Your task to perform on an android device: Play the last video I watched on Youtube Image 0: 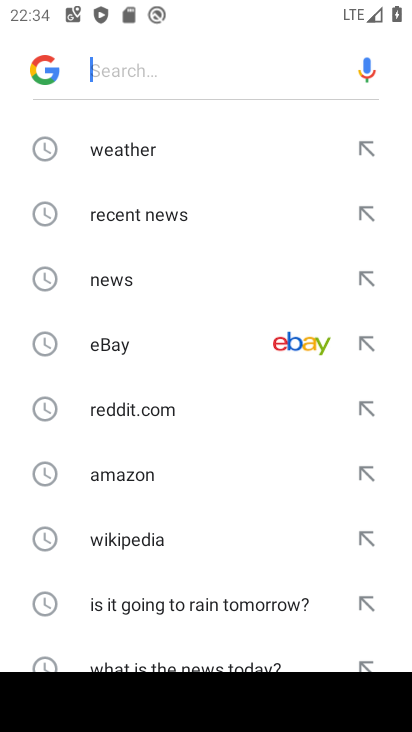
Step 0: press home button
Your task to perform on an android device: Play the last video I watched on Youtube Image 1: 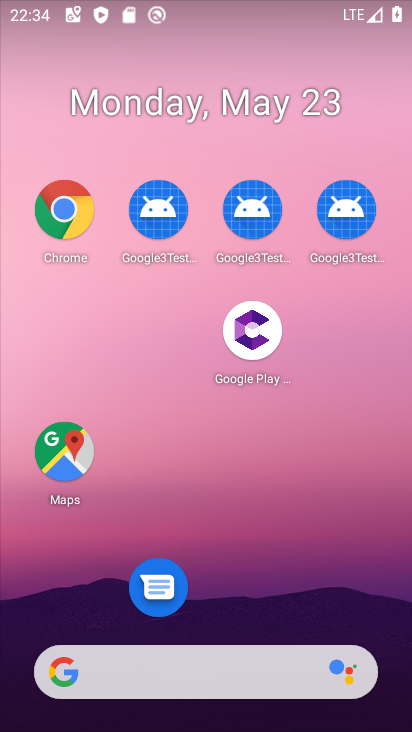
Step 1: drag from (276, 530) to (305, 229)
Your task to perform on an android device: Play the last video I watched on Youtube Image 2: 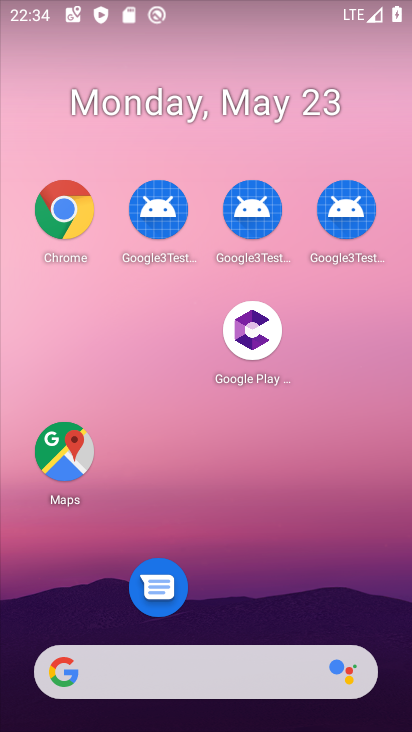
Step 2: drag from (245, 606) to (232, 186)
Your task to perform on an android device: Play the last video I watched on Youtube Image 3: 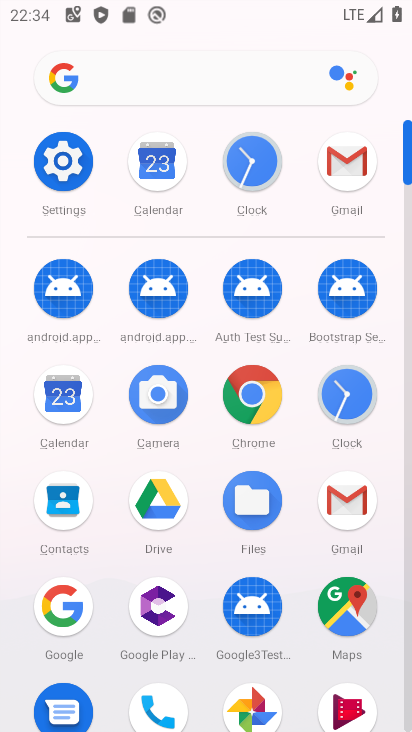
Step 3: drag from (312, 677) to (364, 218)
Your task to perform on an android device: Play the last video I watched on Youtube Image 4: 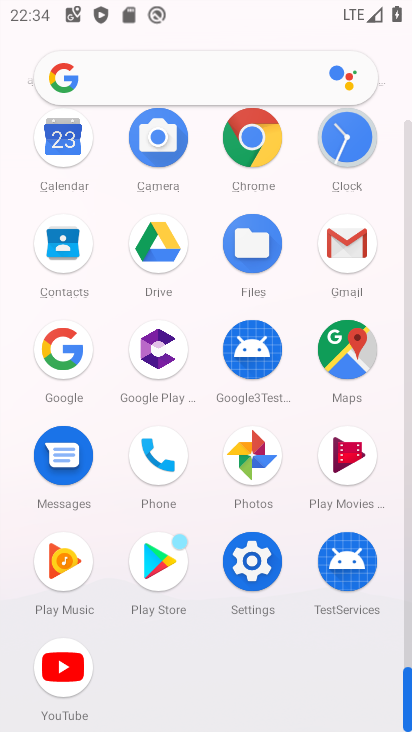
Step 4: click (51, 634)
Your task to perform on an android device: Play the last video I watched on Youtube Image 5: 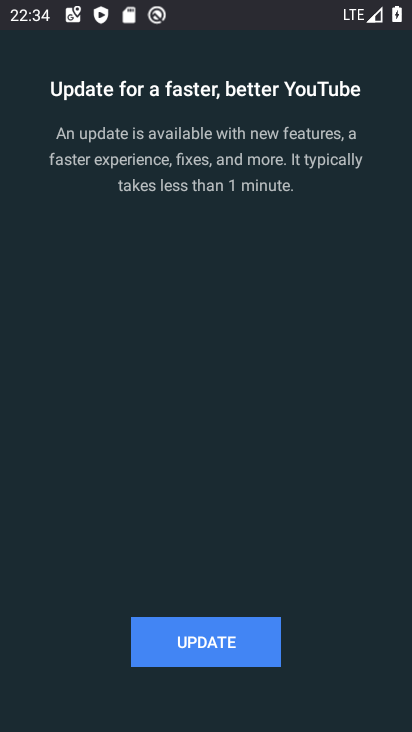
Step 5: click (146, 646)
Your task to perform on an android device: Play the last video I watched on Youtube Image 6: 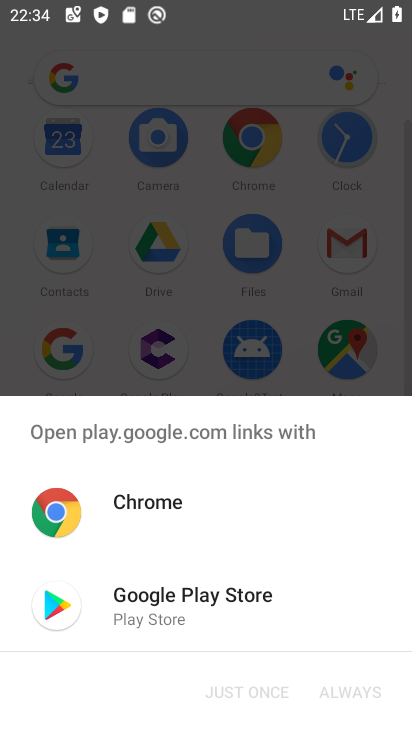
Step 6: click (193, 592)
Your task to perform on an android device: Play the last video I watched on Youtube Image 7: 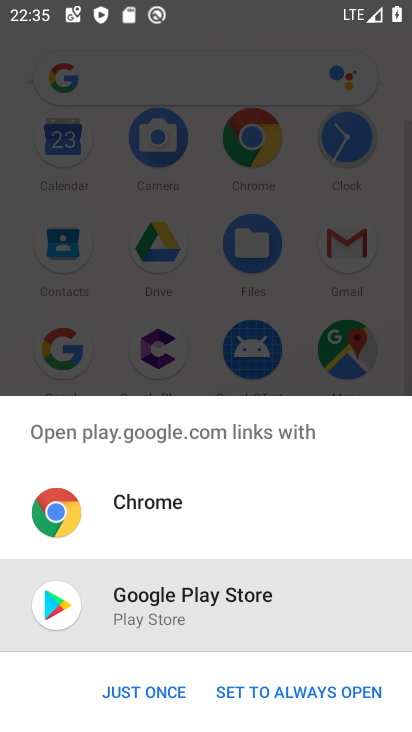
Step 7: click (269, 694)
Your task to perform on an android device: Play the last video I watched on Youtube Image 8: 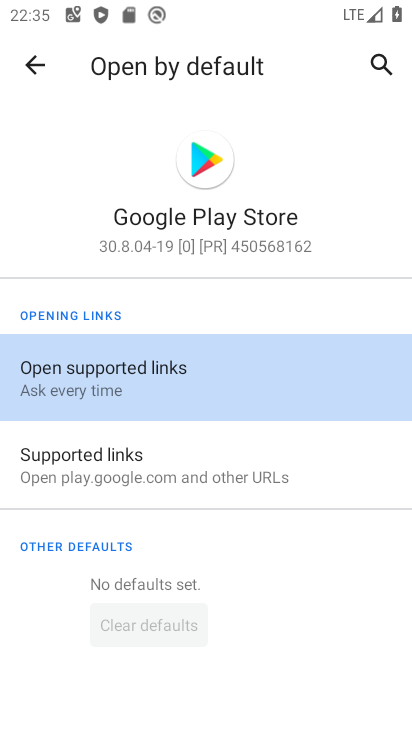
Step 8: press back button
Your task to perform on an android device: Play the last video I watched on Youtube Image 9: 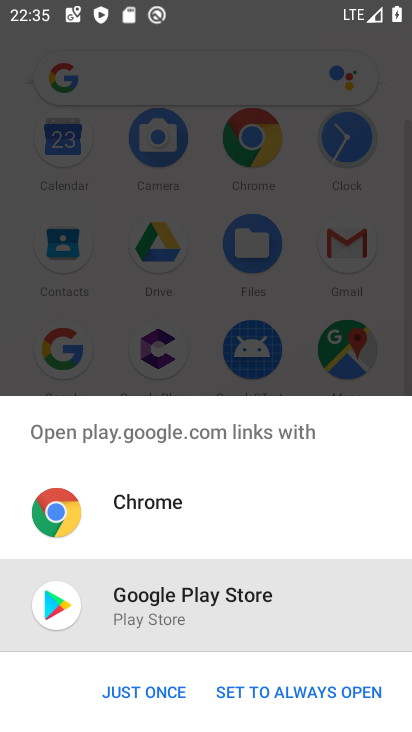
Step 9: click (166, 684)
Your task to perform on an android device: Play the last video I watched on Youtube Image 10: 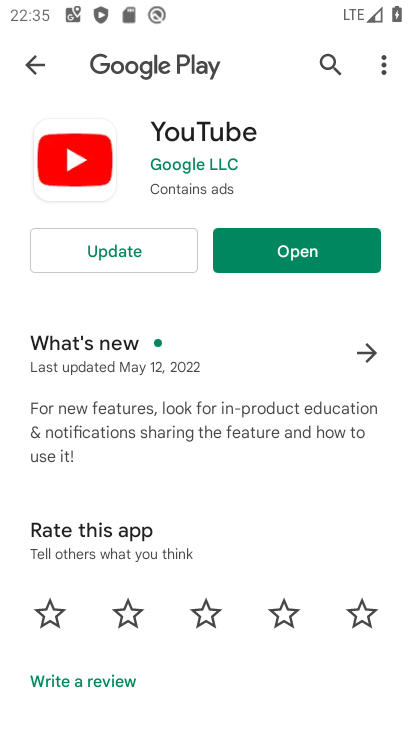
Step 10: click (90, 258)
Your task to perform on an android device: Play the last video I watched on Youtube Image 11: 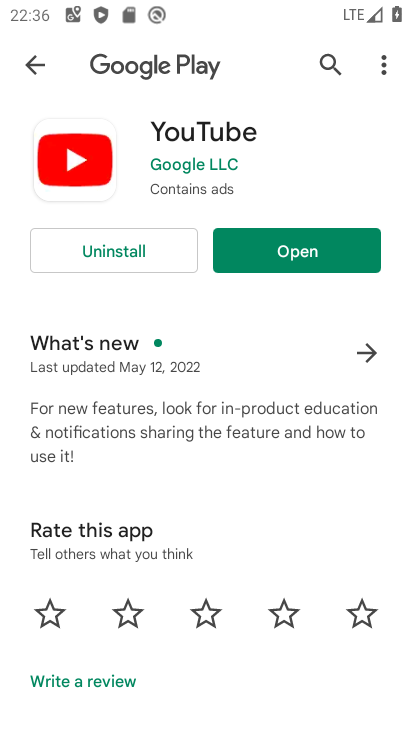
Step 11: click (270, 249)
Your task to perform on an android device: Play the last video I watched on Youtube Image 12: 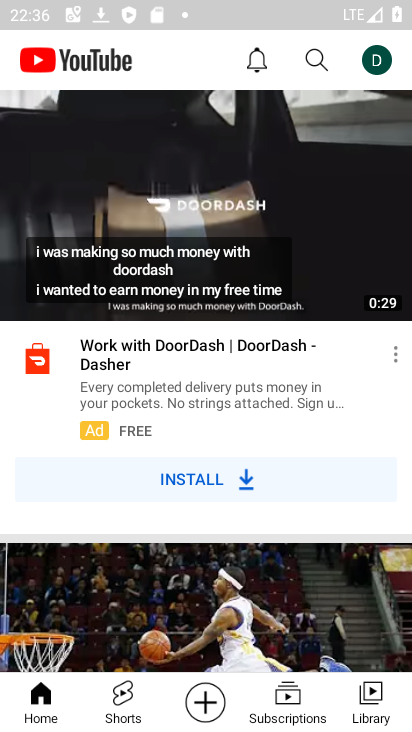
Step 12: drag from (190, 628) to (175, 376)
Your task to perform on an android device: Play the last video I watched on Youtube Image 13: 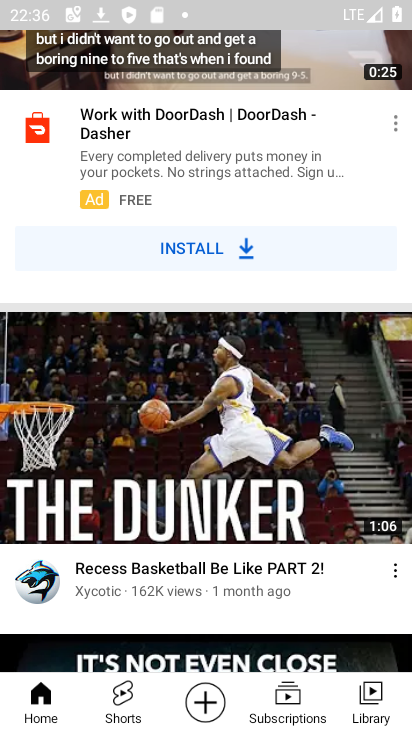
Step 13: click (367, 710)
Your task to perform on an android device: Play the last video I watched on Youtube Image 14: 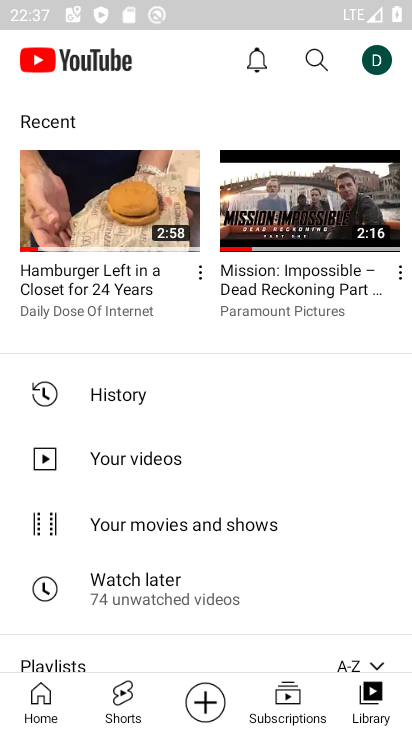
Step 14: click (70, 210)
Your task to perform on an android device: Play the last video I watched on Youtube Image 15: 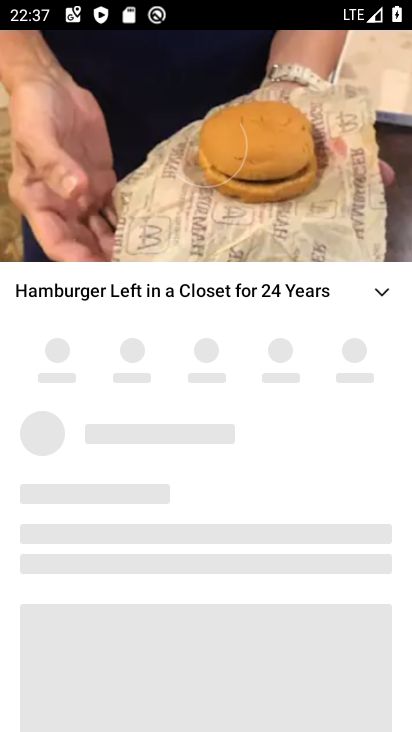
Step 15: click (70, 210)
Your task to perform on an android device: Play the last video I watched on Youtube Image 16: 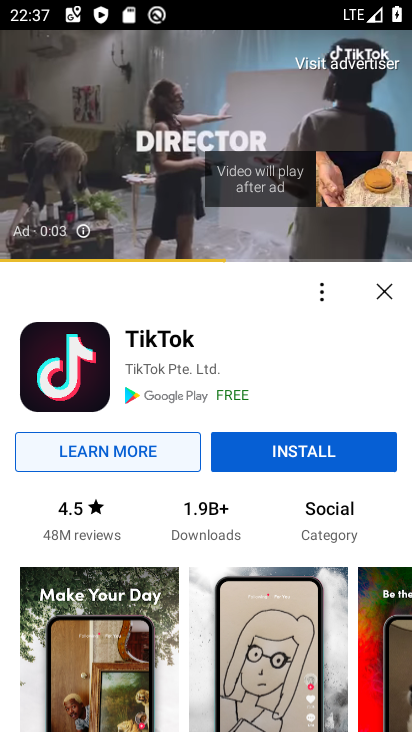
Step 16: click (387, 288)
Your task to perform on an android device: Play the last video I watched on Youtube Image 17: 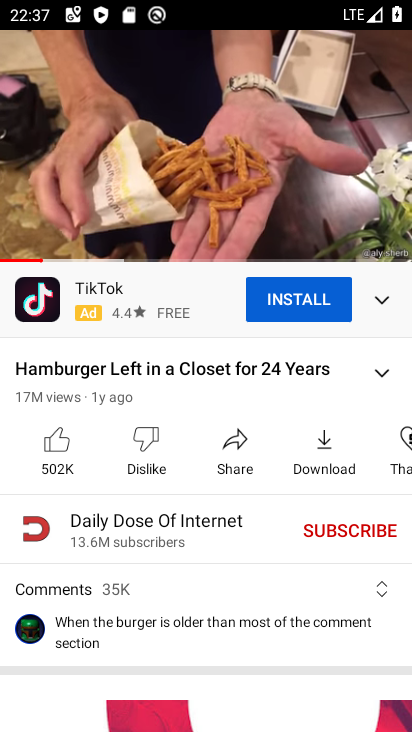
Step 17: task complete